Your task to perform on an android device: delete browsing data in the chrome app Image 0: 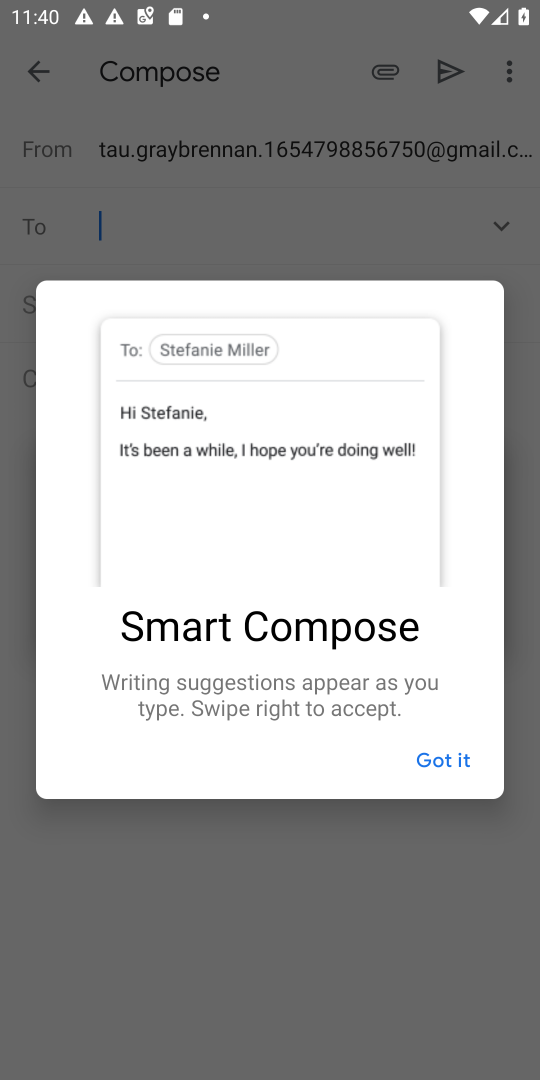
Step 0: press home button
Your task to perform on an android device: delete browsing data in the chrome app Image 1: 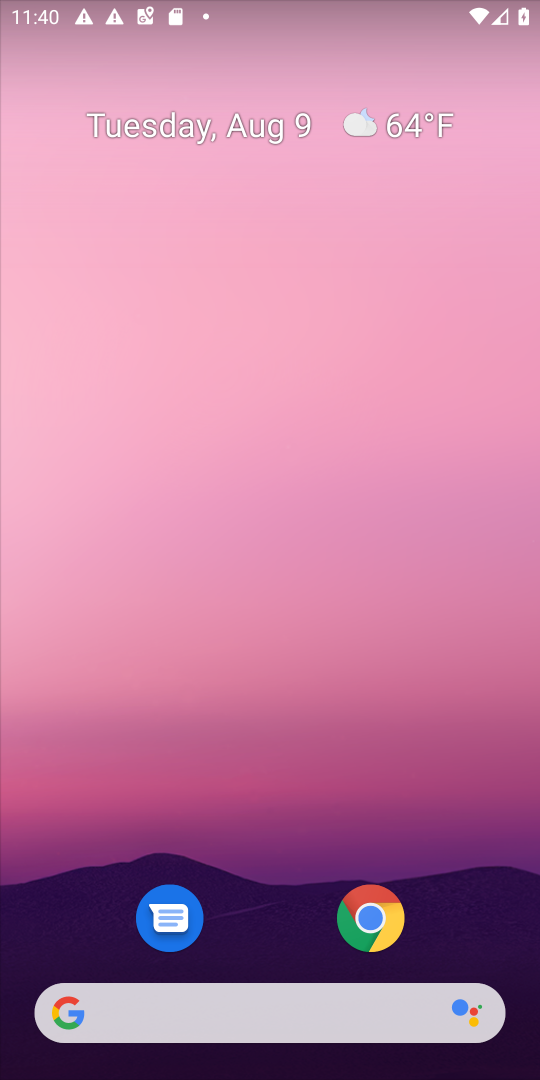
Step 1: drag from (262, 911) to (318, 228)
Your task to perform on an android device: delete browsing data in the chrome app Image 2: 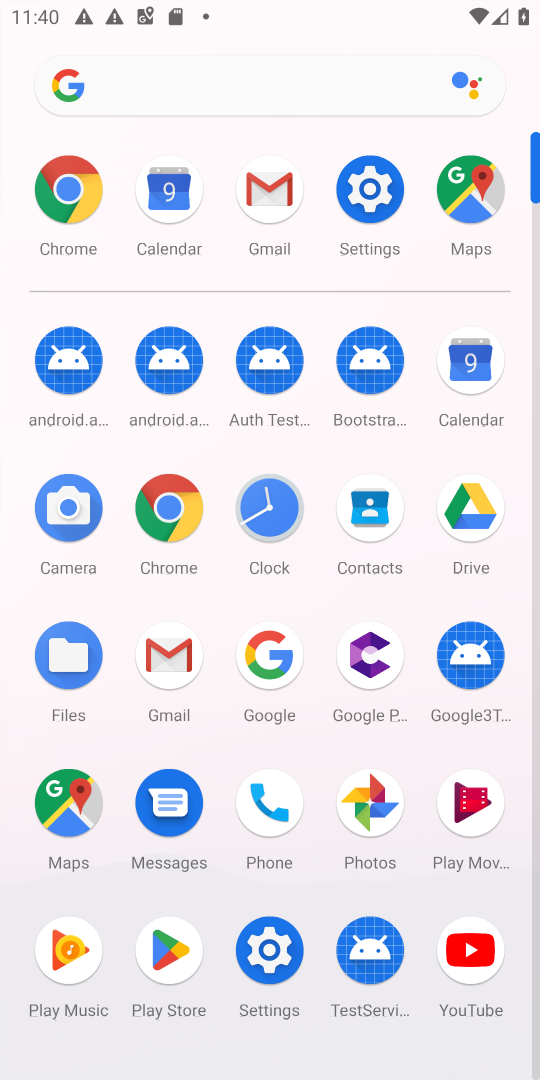
Step 2: click (169, 513)
Your task to perform on an android device: delete browsing data in the chrome app Image 3: 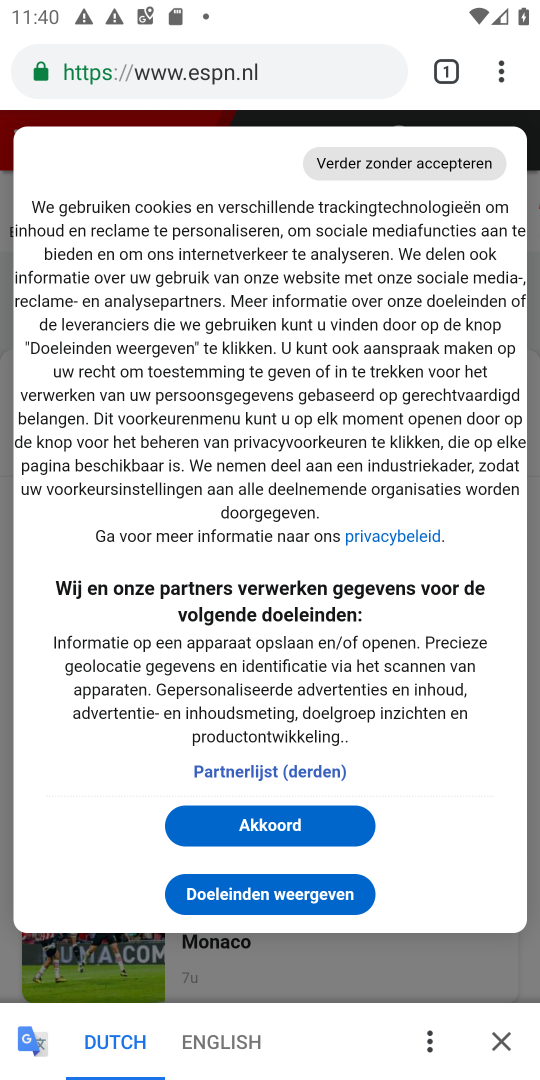
Step 3: drag from (505, 53) to (281, 469)
Your task to perform on an android device: delete browsing data in the chrome app Image 4: 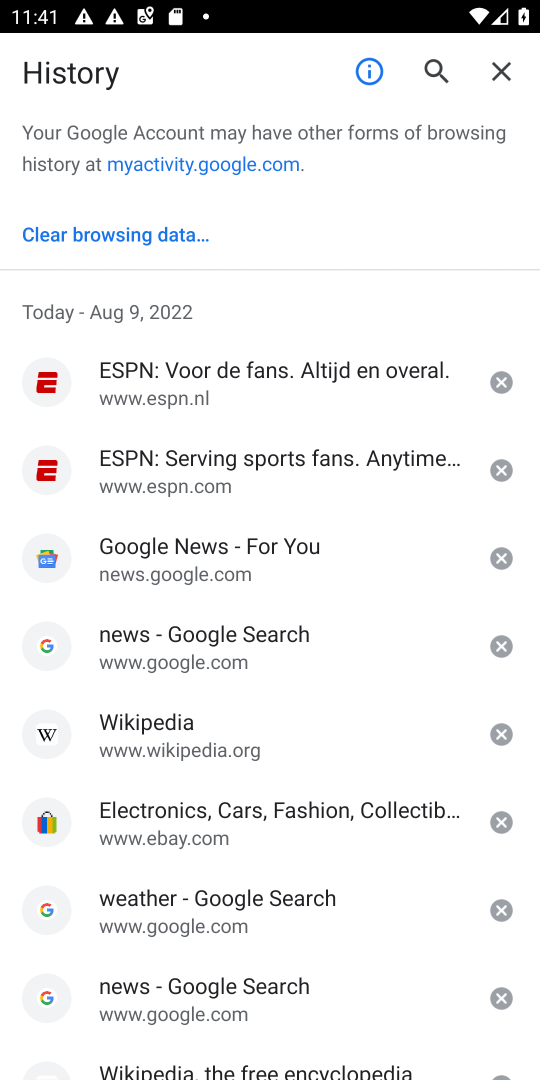
Step 4: click (158, 245)
Your task to perform on an android device: delete browsing data in the chrome app Image 5: 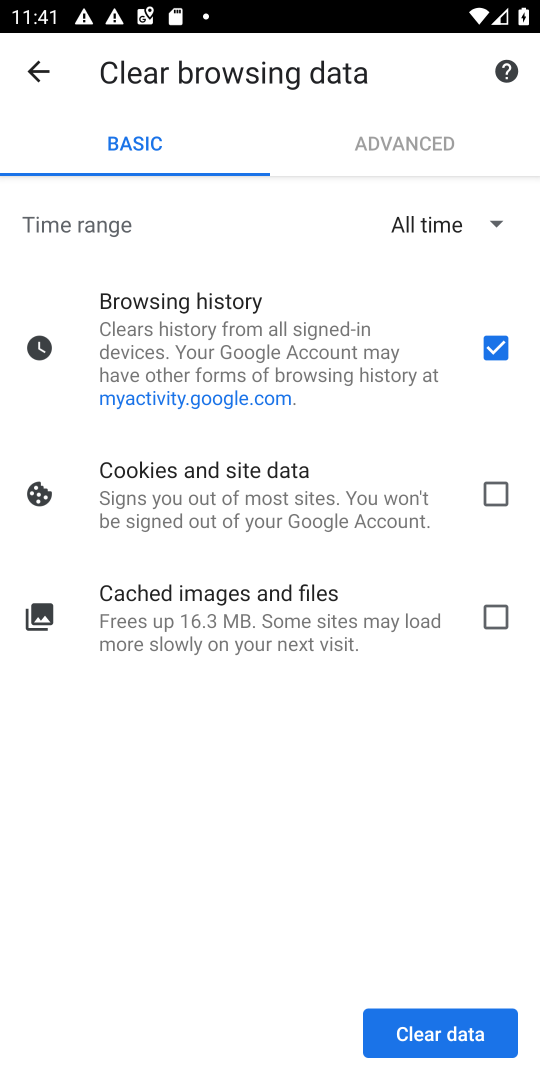
Step 5: click (498, 488)
Your task to perform on an android device: delete browsing data in the chrome app Image 6: 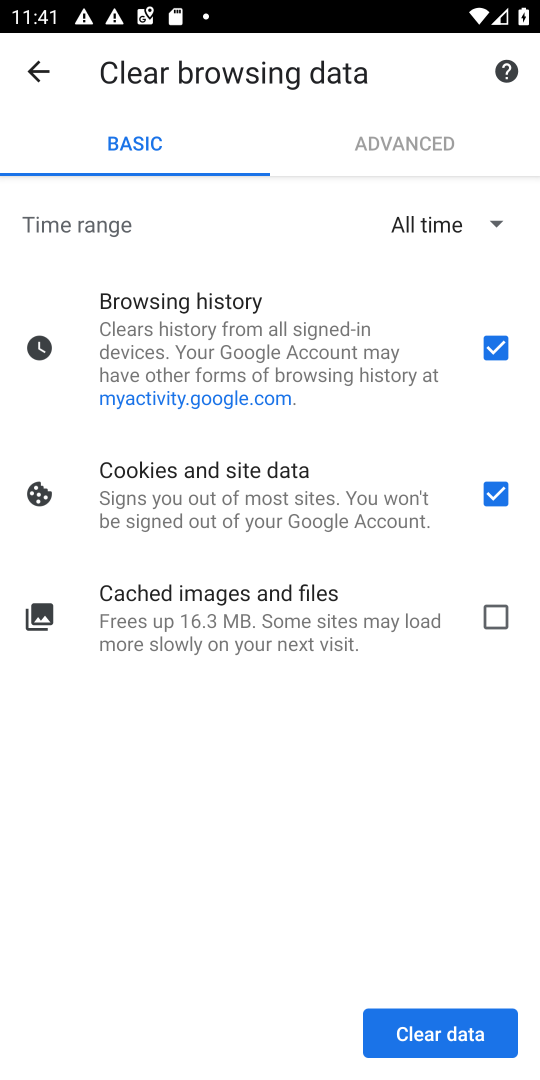
Step 6: click (495, 609)
Your task to perform on an android device: delete browsing data in the chrome app Image 7: 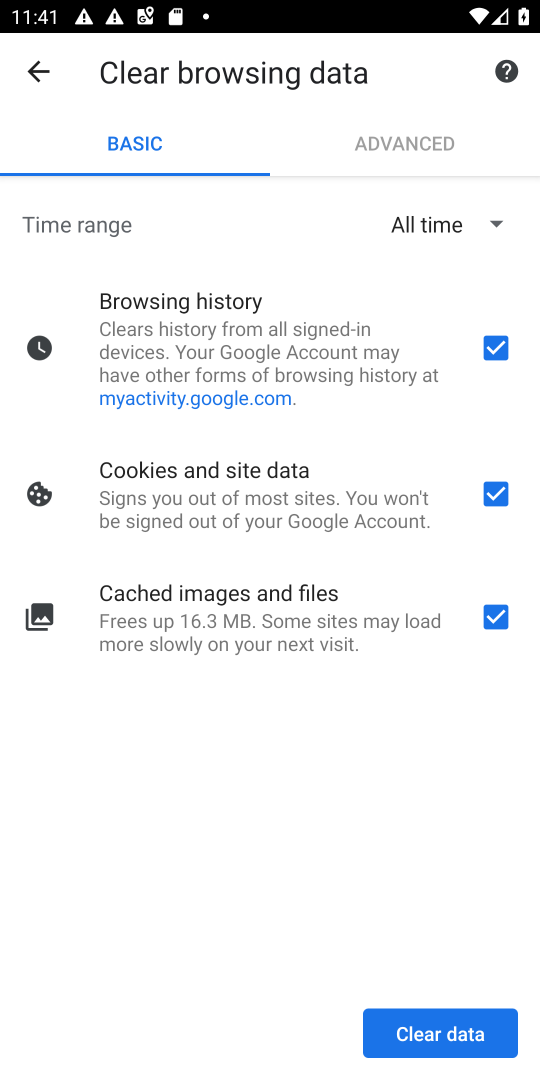
Step 7: click (473, 1037)
Your task to perform on an android device: delete browsing data in the chrome app Image 8: 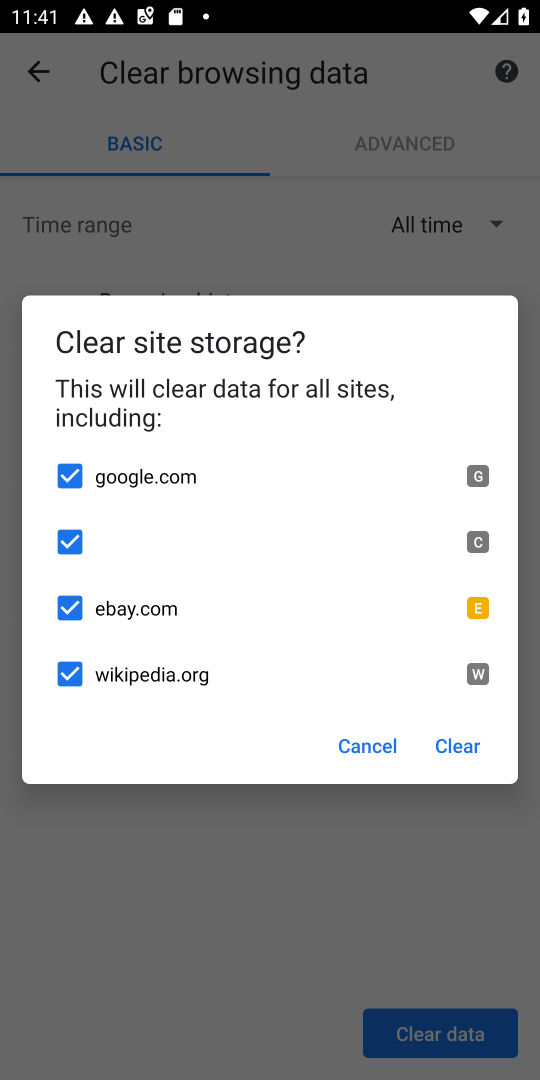
Step 8: click (475, 743)
Your task to perform on an android device: delete browsing data in the chrome app Image 9: 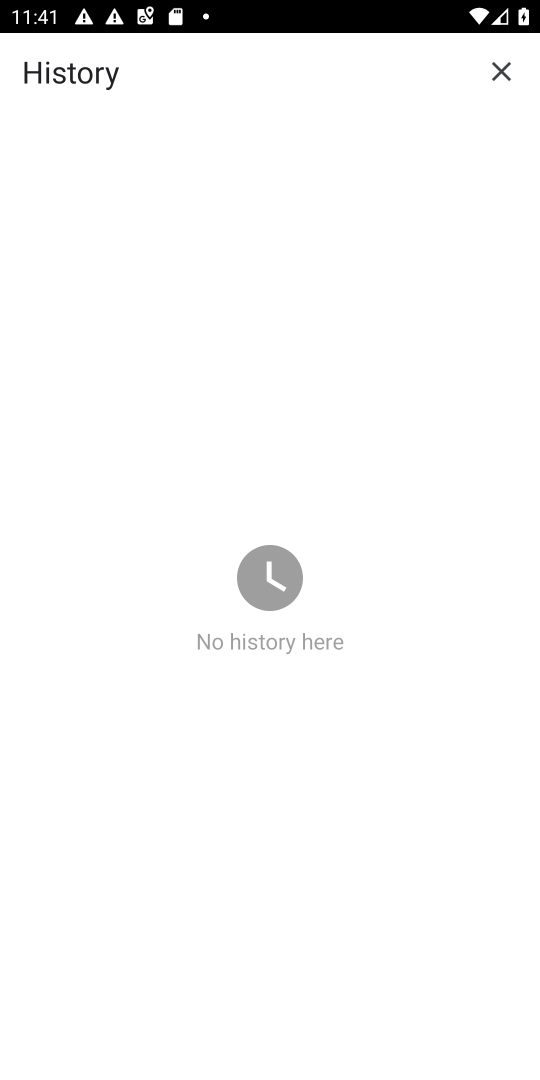
Step 9: task complete